Your task to perform on an android device: remove spam from my inbox in the gmail app Image 0: 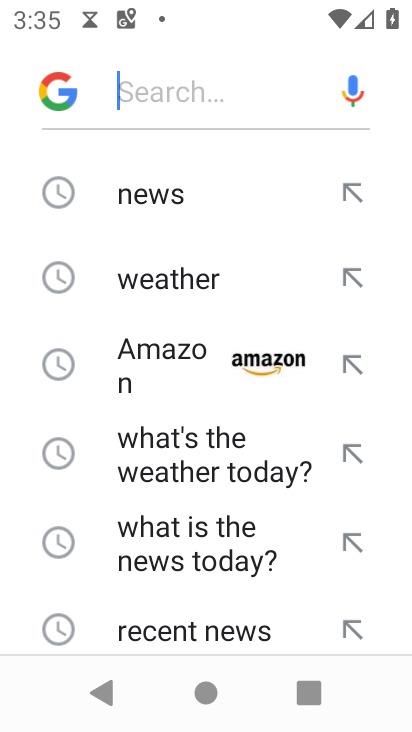
Step 0: press home button
Your task to perform on an android device: remove spam from my inbox in the gmail app Image 1: 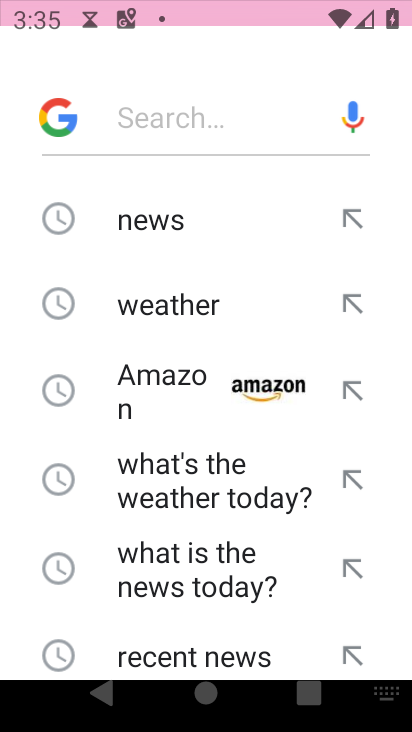
Step 1: press home button
Your task to perform on an android device: remove spam from my inbox in the gmail app Image 2: 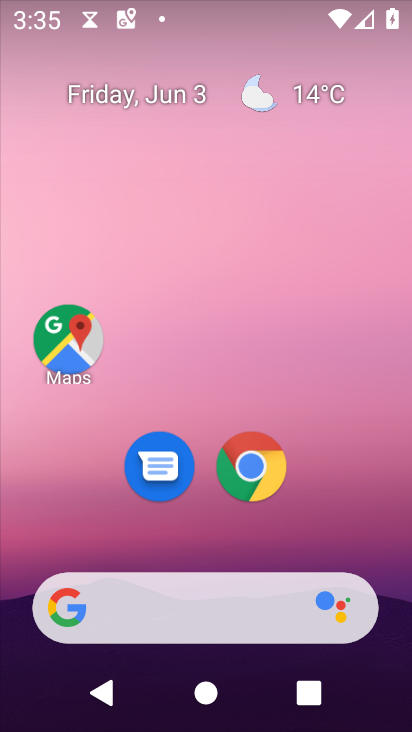
Step 2: click (252, 393)
Your task to perform on an android device: remove spam from my inbox in the gmail app Image 3: 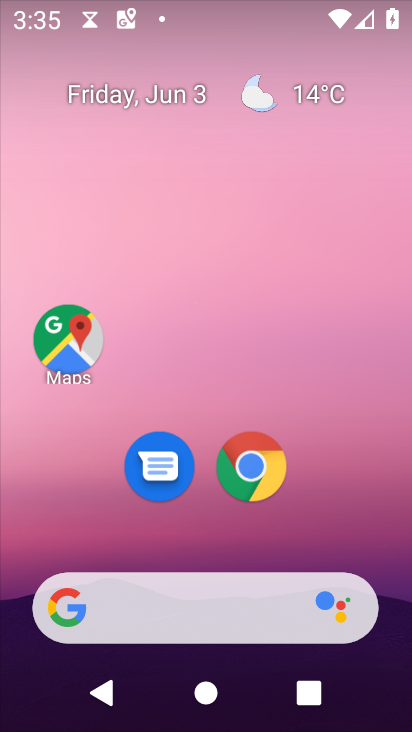
Step 3: click (312, 149)
Your task to perform on an android device: remove spam from my inbox in the gmail app Image 4: 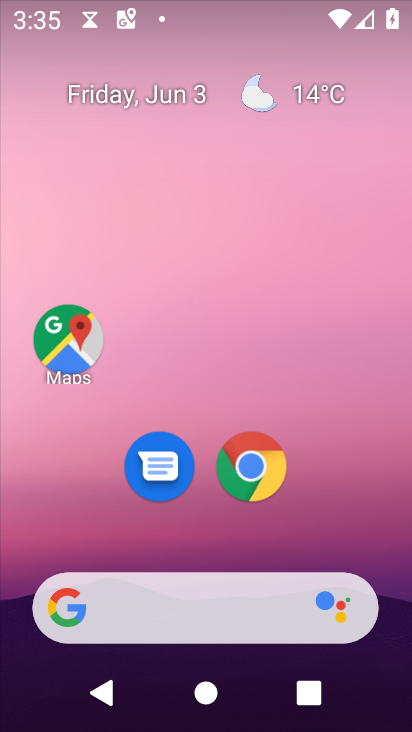
Step 4: drag from (353, 481) to (348, 445)
Your task to perform on an android device: remove spam from my inbox in the gmail app Image 5: 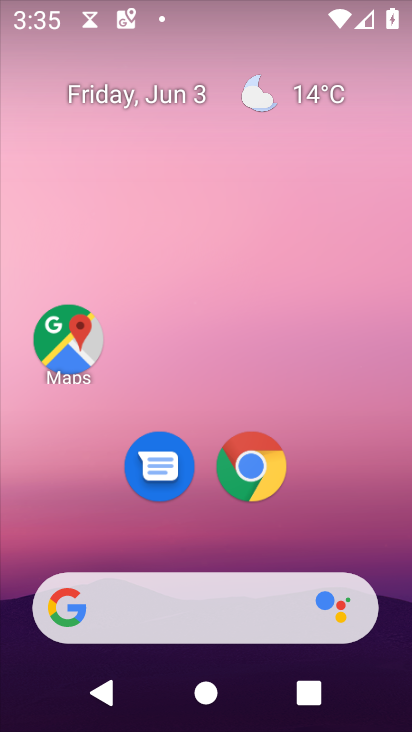
Step 5: drag from (348, 445) to (309, 139)
Your task to perform on an android device: remove spam from my inbox in the gmail app Image 6: 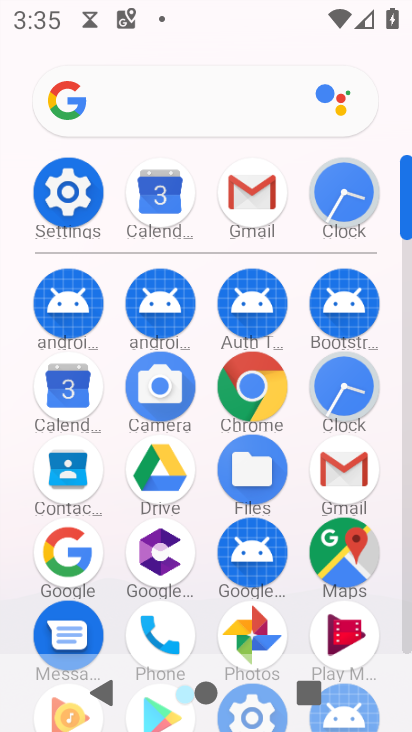
Step 6: click (344, 473)
Your task to perform on an android device: remove spam from my inbox in the gmail app Image 7: 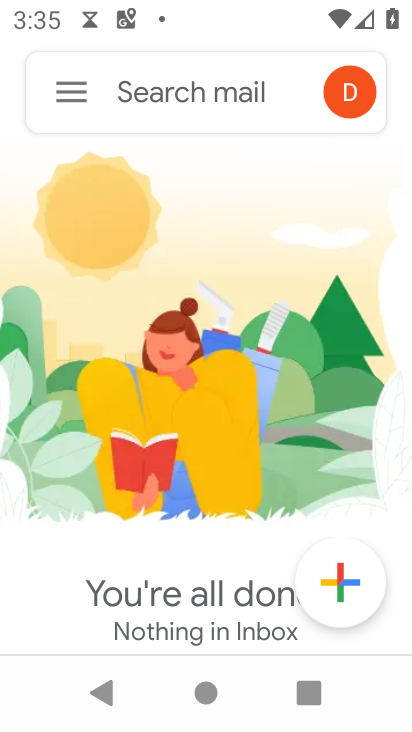
Step 7: click (84, 95)
Your task to perform on an android device: remove spam from my inbox in the gmail app Image 8: 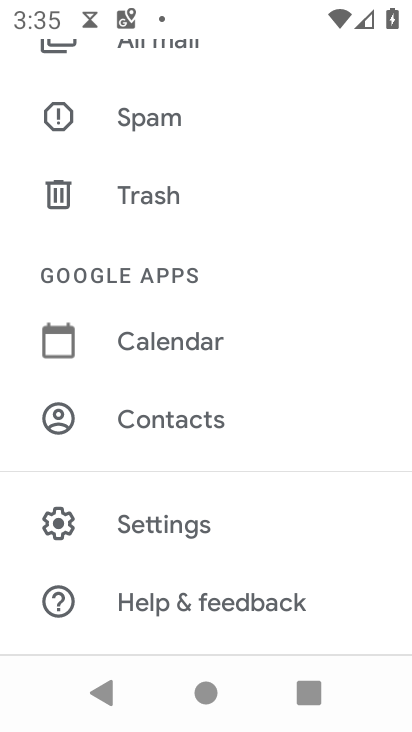
Step 8: click (159, 140)
Your task to perform on an android device: remove spam from my inbox in the gmail app Image 9: 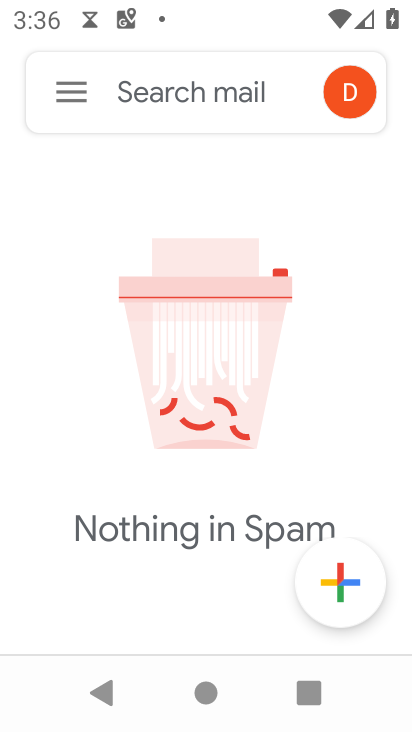
Step 9: task complete